Your task to perform on an android device: Open Google Image 0: 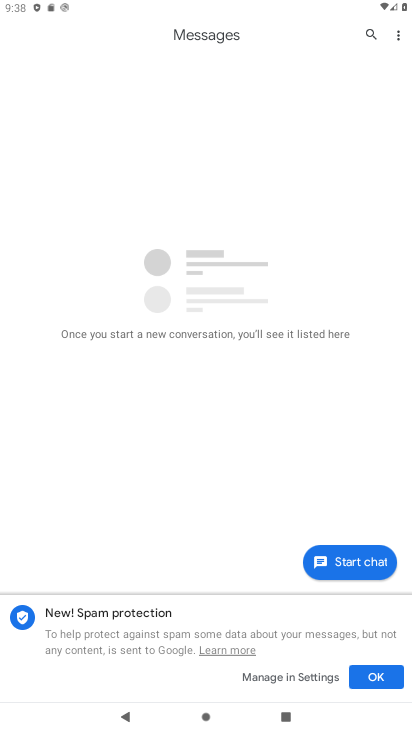
Step 0: press home button
Your task to perform on an android device: Open Google Image 1: 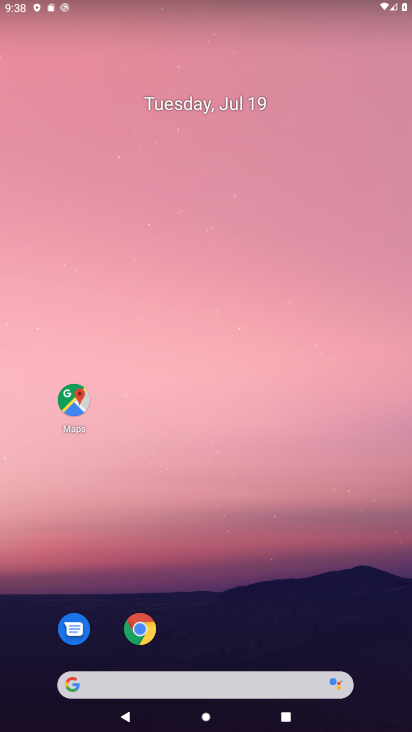
Step 1: click (77, 682)
Your task to perform on an android device: Open Google Image 2: 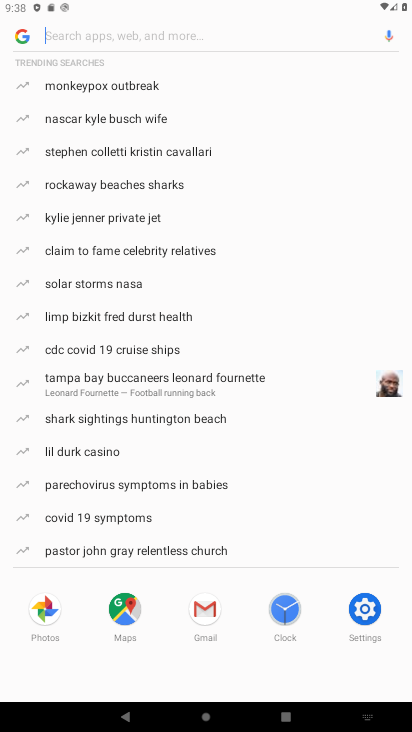
Step 2: click (25, 37)
Your task to perform on an android device: Open Google Image 3: 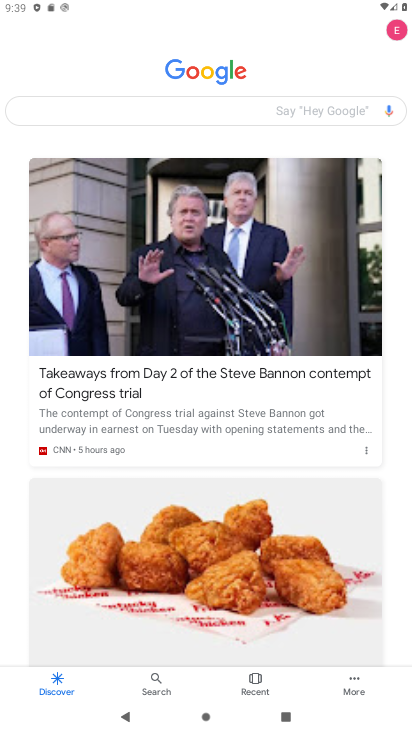
Step 3: task complete